Your task to perform on an android device: Check the news Image 0: 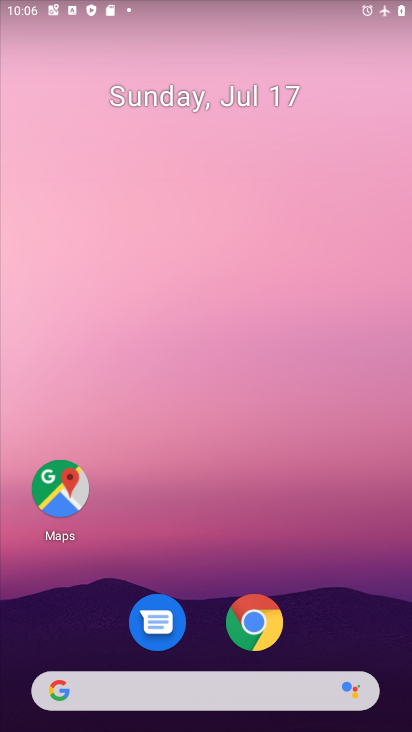
Step 0: click (194, 703)
Your task to perform on an android device: Check the news Image 1: 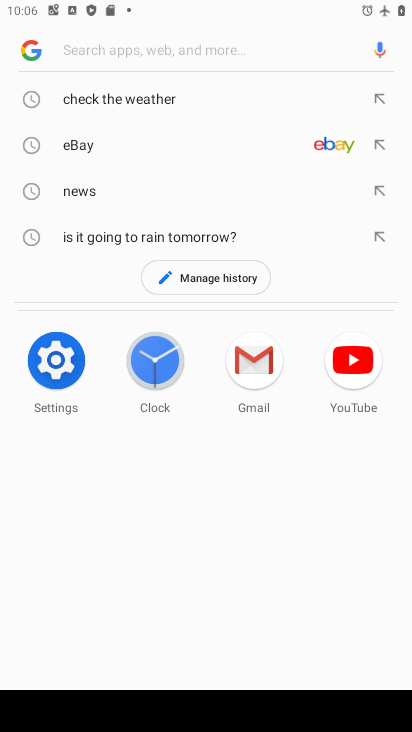
Step 1: click (112, 196)
Your task to perform on an android device: Check the news Image 2: 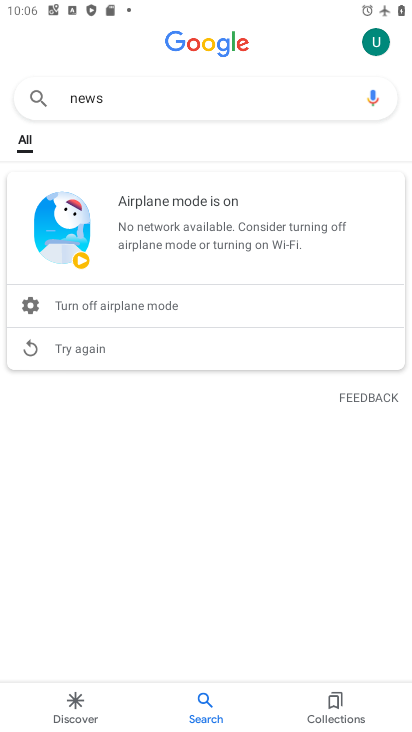
Step 2: task complete